Your task to perform on an android device: Open accessibility settings Image 0: 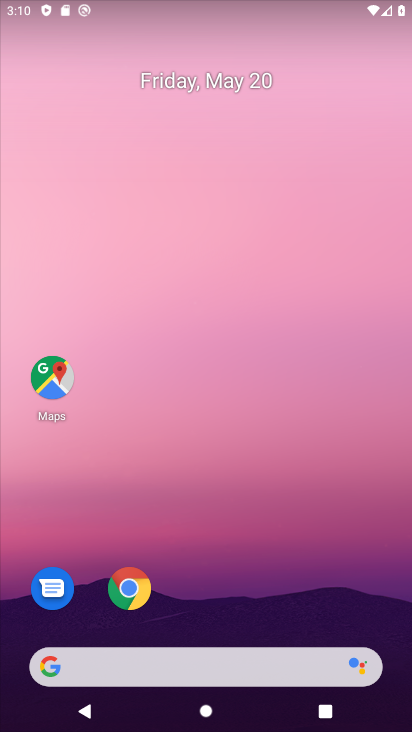
Step 0: press home button
Your task to perform on an android device: Open accessibility settings Image 1: 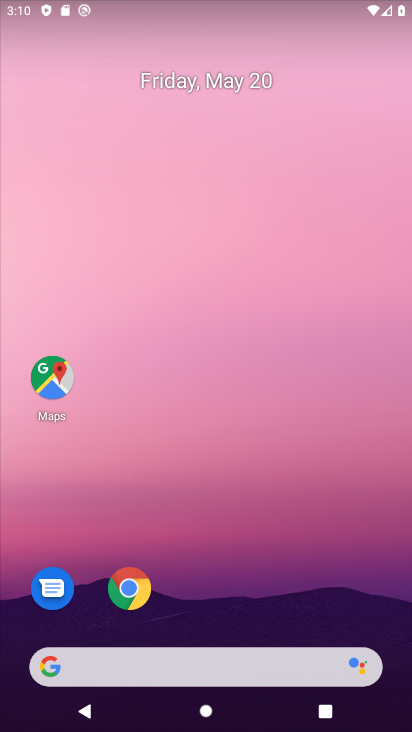
Step 1: drag from (171, 634) to (238, 252)
Your task to perform on an android device: Open accessibility settings Image 2: 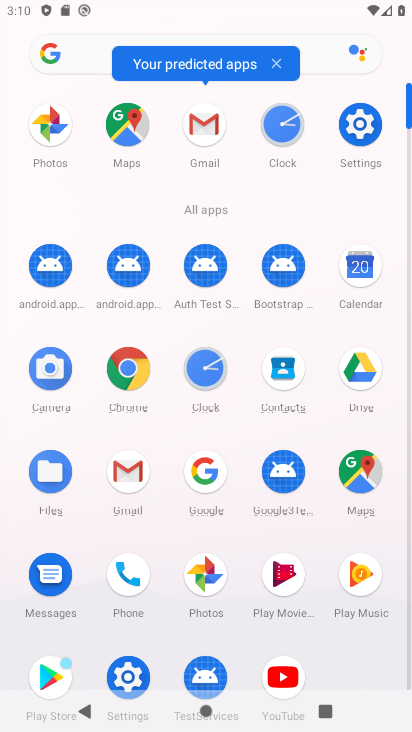
Step 2: click (362, 127)
Your task to perform on an android device: Open accessibility settings Image 3: 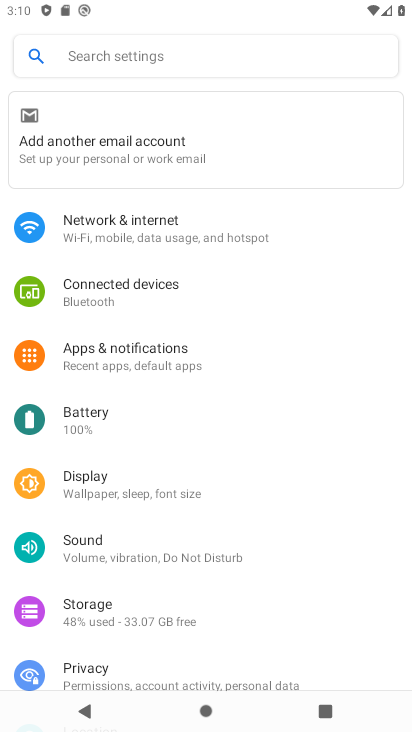
Step 3: drag from (173, 662) to (307, 114)
Your task to perform on an android device: Open accessibility settings Image 4: 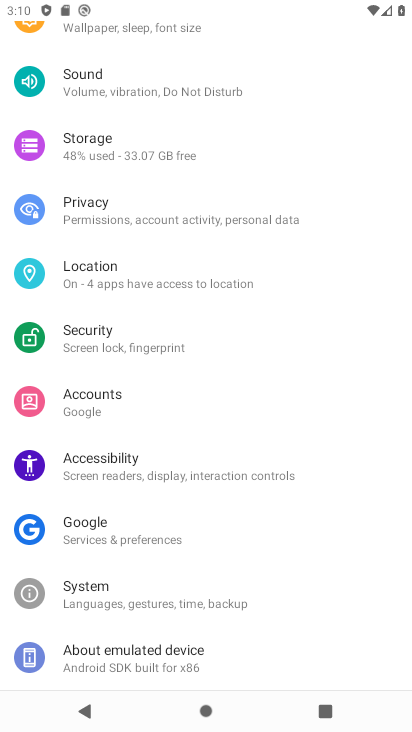
Step 4: click (129, 468)
Your task to perform on an android device: Open accessibility settings Image 5: 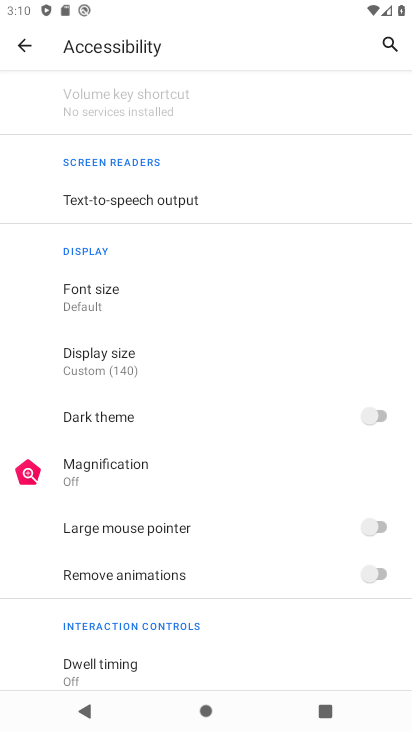
Step 5: task complete